Your task to perform on an android device: Open Chrome and go to the settings page Image 0: 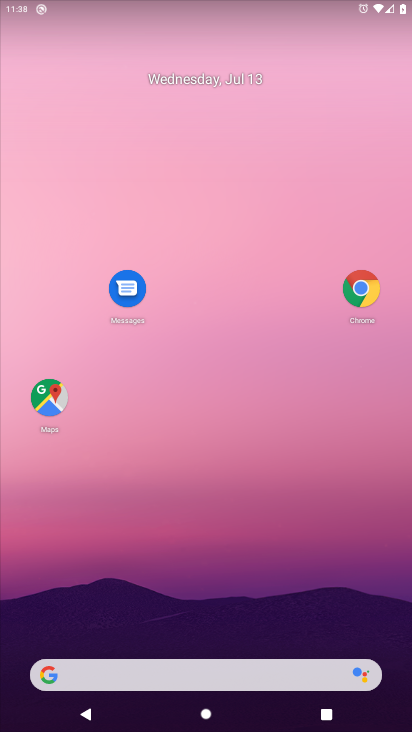
Step 0: click (361, 295)
Your task to perform on an android device: Open Chrome and go to the settings page Image 1: 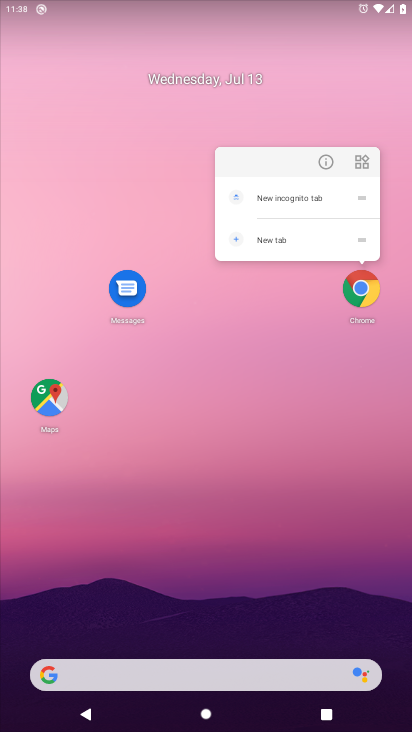
Step 1: click (357, 286)
Your task to perform on an android device: Open Chrome and go to the settings page Image 2: 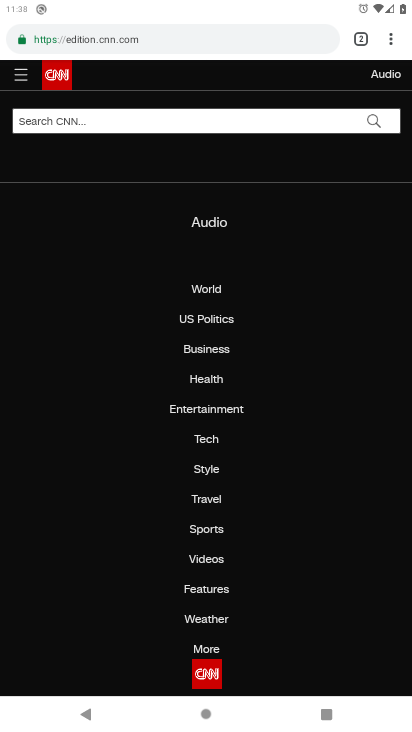
Step 2: click (391, 42)
Your task to perform on an android device: Open Chrome and go to the settings page Image 3: 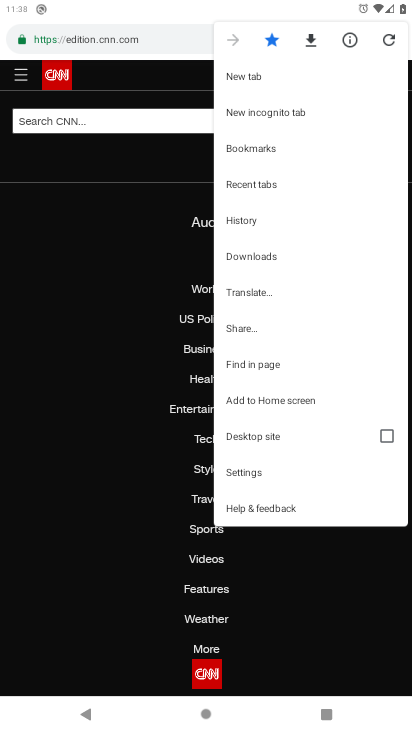
Step 3: click (247, 475)
Your task to perform on an android device: Open Chrome and go to the settings page Image 4: 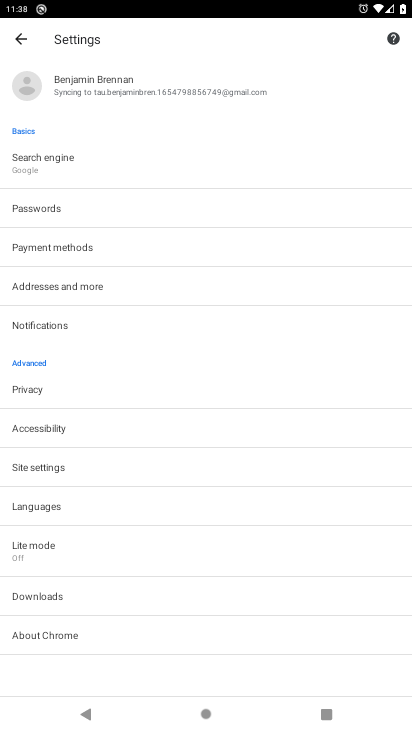
Step 4: task complete